Your task to perform on an android device: set default search engine in the chrome app Image 0: 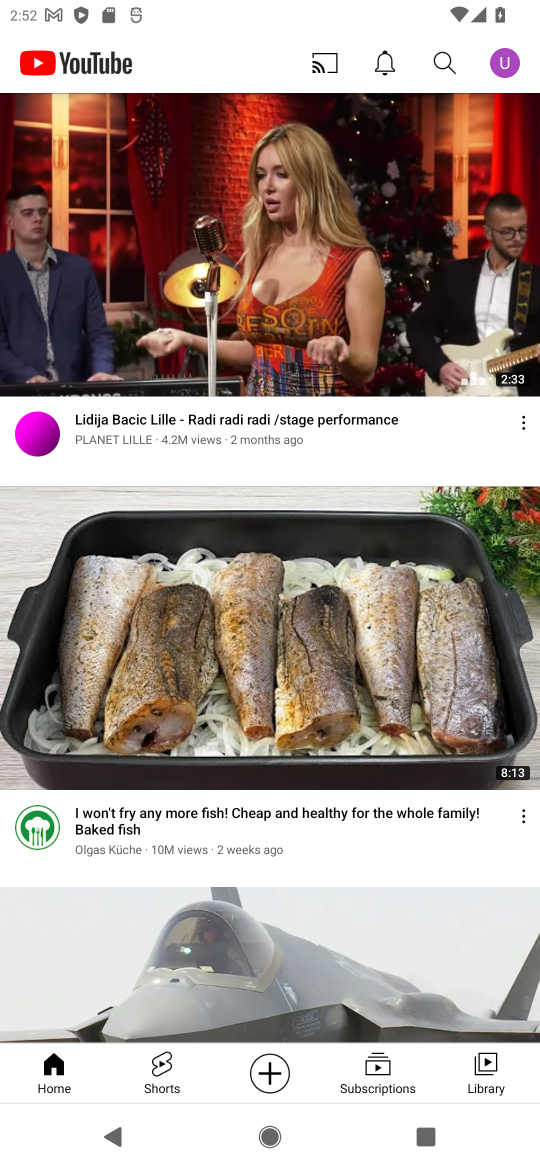
Step 0: press home button
Your task to perform on an android device: set default search engine in the chrome app Image 1: 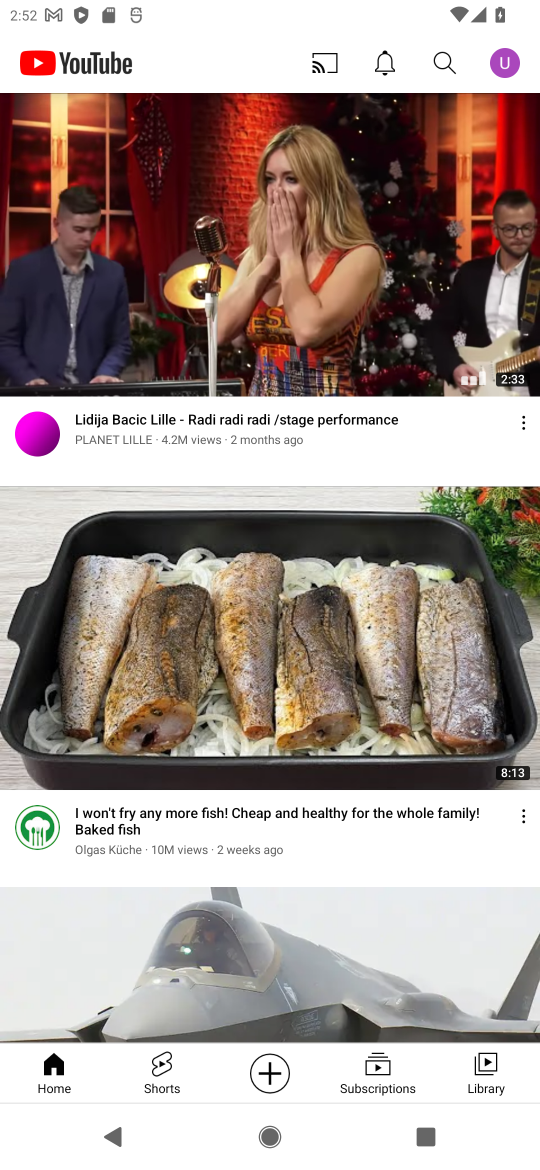
Step 1: press home button
Your task to perform on an android device: set default search engine in the chrome app Image 2: 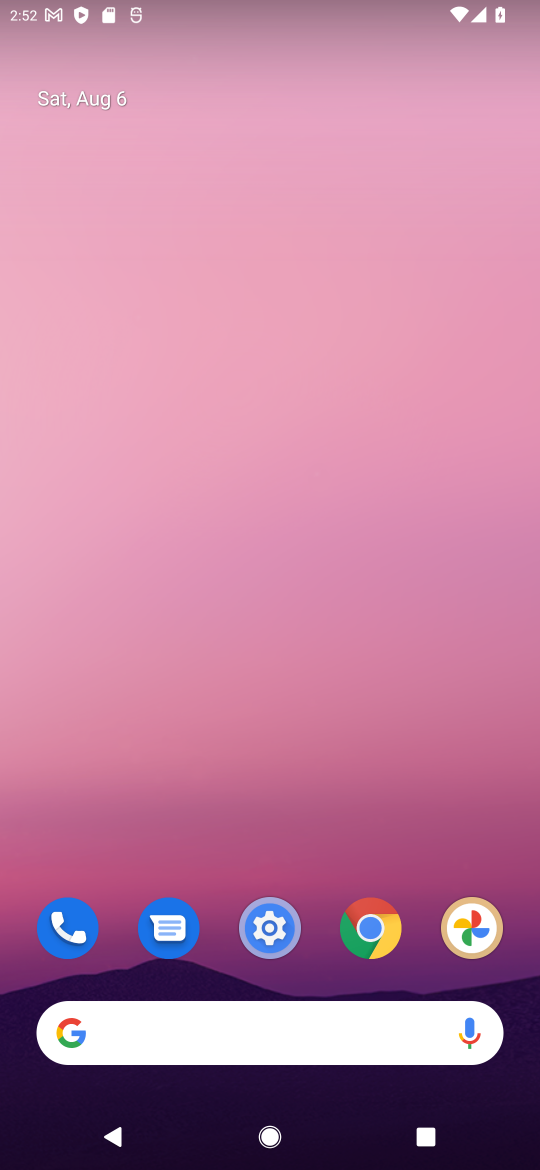
Step 2: drag from (219, 947) to (319, 333)
Your task to perform on an android device: set default search engine in the chrome app Image 3: 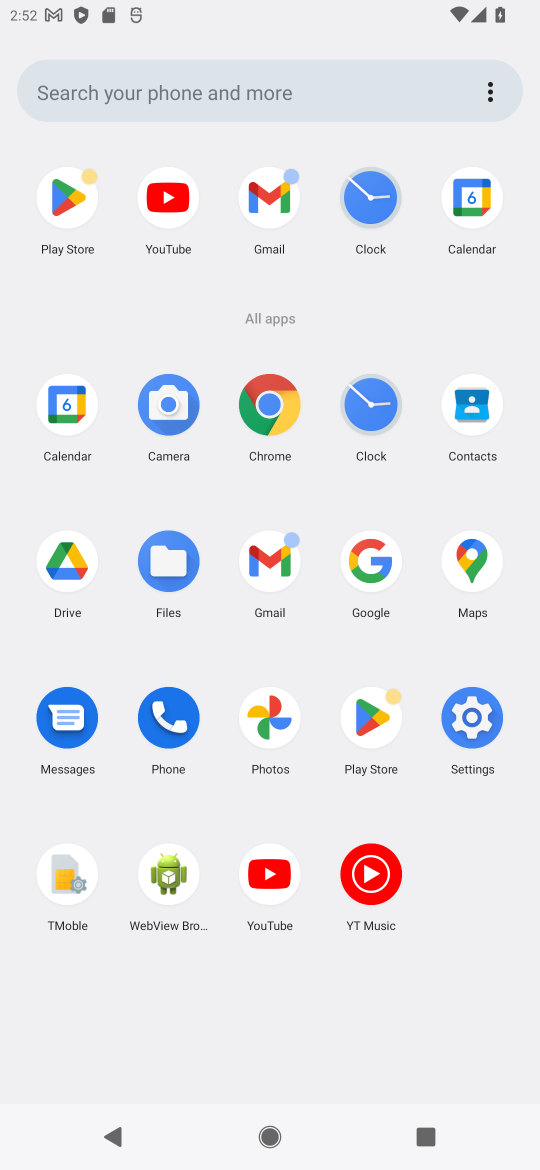
Step 3: click (276, 402)
Your task to perform on an android device: set default search engine in the chrome app Image 4: 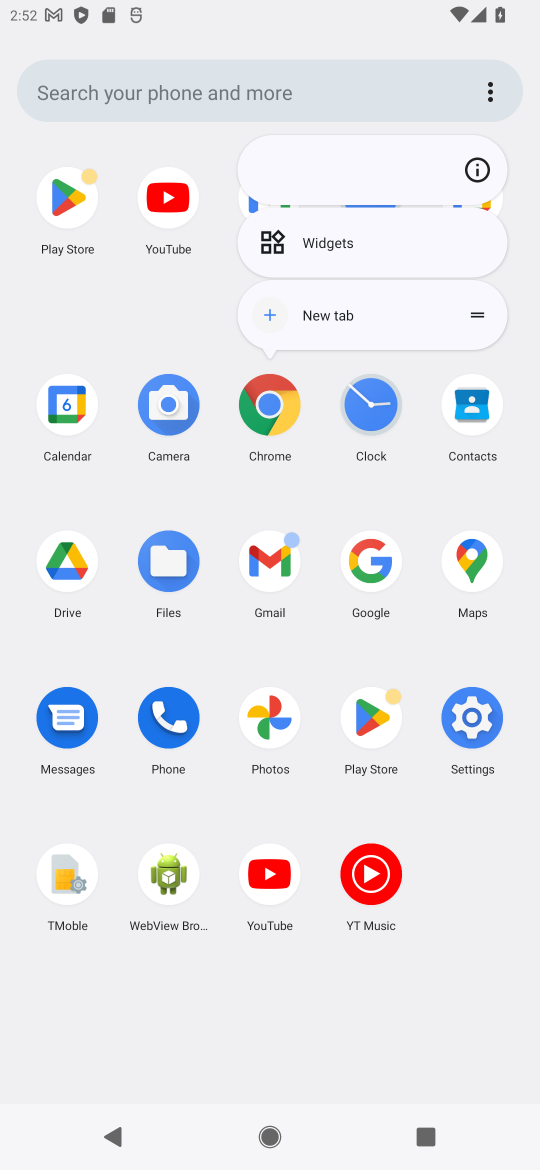
Step 4: click (469, 175)
Your task to perform on an android device: set default search engine in the chrome app Image 5: 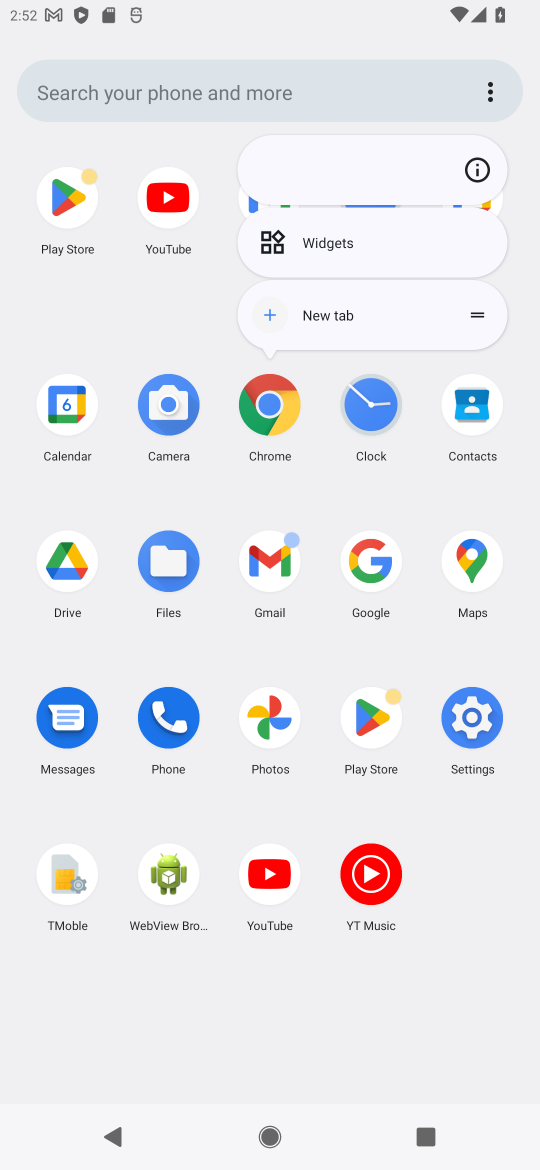
Step 5: click (468, 180)
Your task to perform on an android device: set default search engine in the chrome app Image 6: 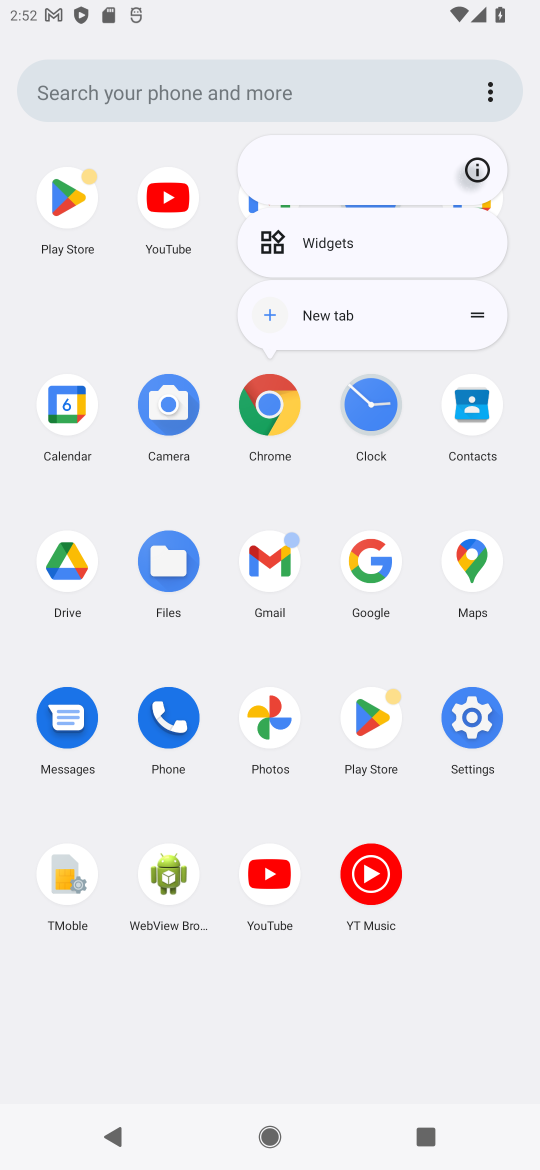
Step 6: click (468, 181)
Your task to perform on an android device: set default search engine in the chrome app Image 7: 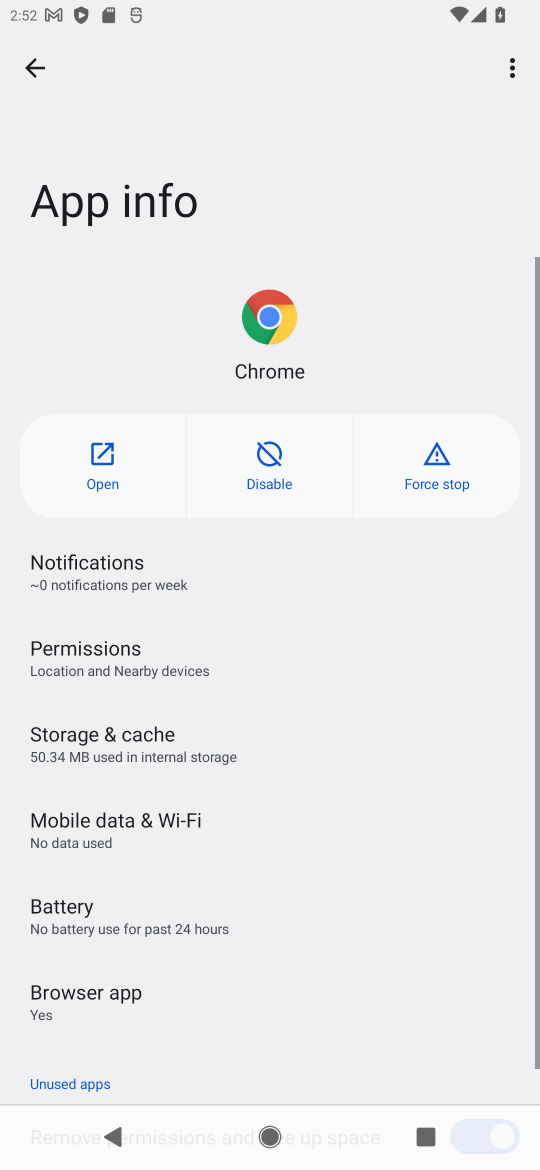
Step 7: click (85, 470)
Your task to perform on an android device: set default search engine in the chrome app Image 8: 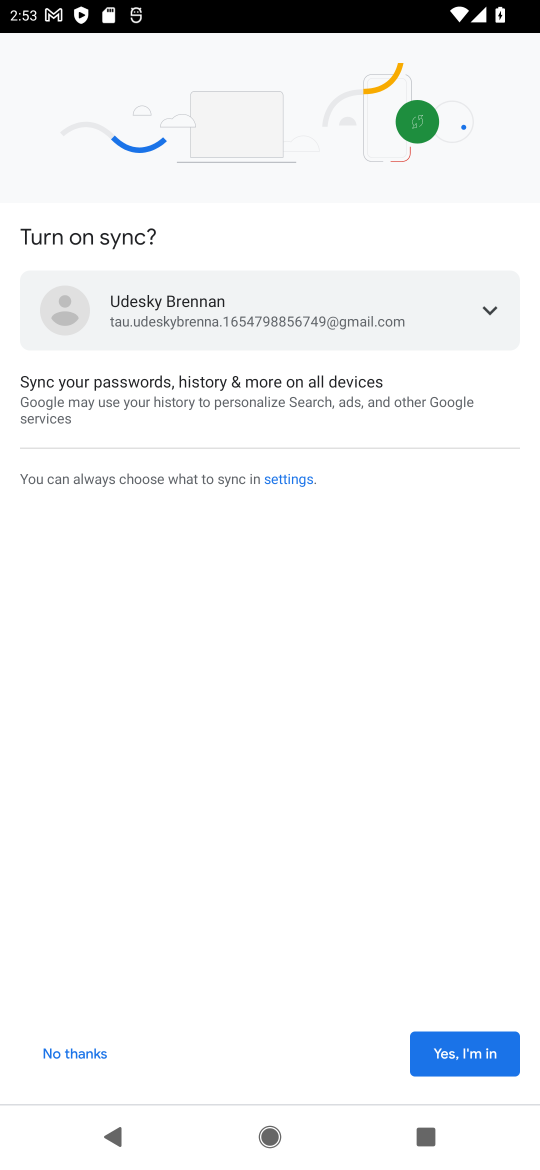
Step 8: drag from (299, 724) to (325, 566)
Your task to perform on an android device: set default search engine in the chrome app Image 9: 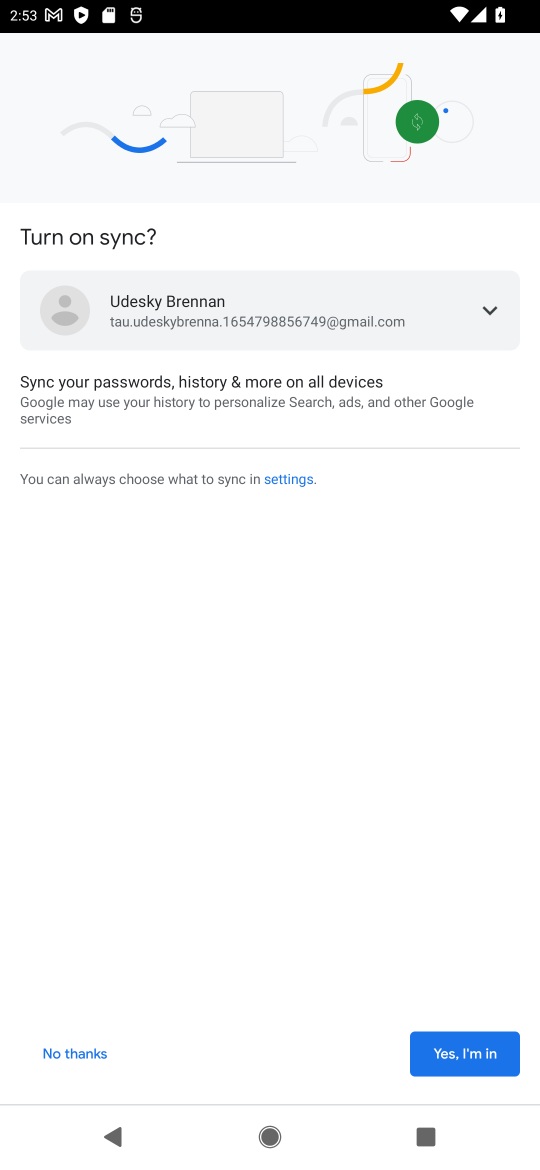
Step 9: drag from (192, 702) to (260, 342)
Your task to perform on an android device: set default search engine in the chrome app Image 10: 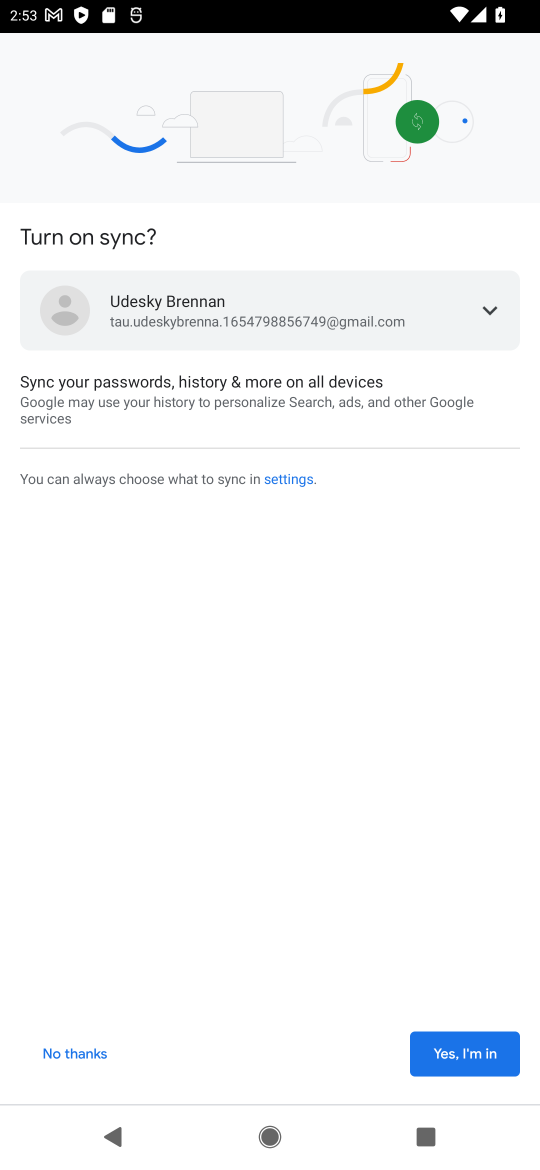
Step 10: click (455, 1045)
Your task to perform on an android device: set default search engine in the chrome app Image 11: 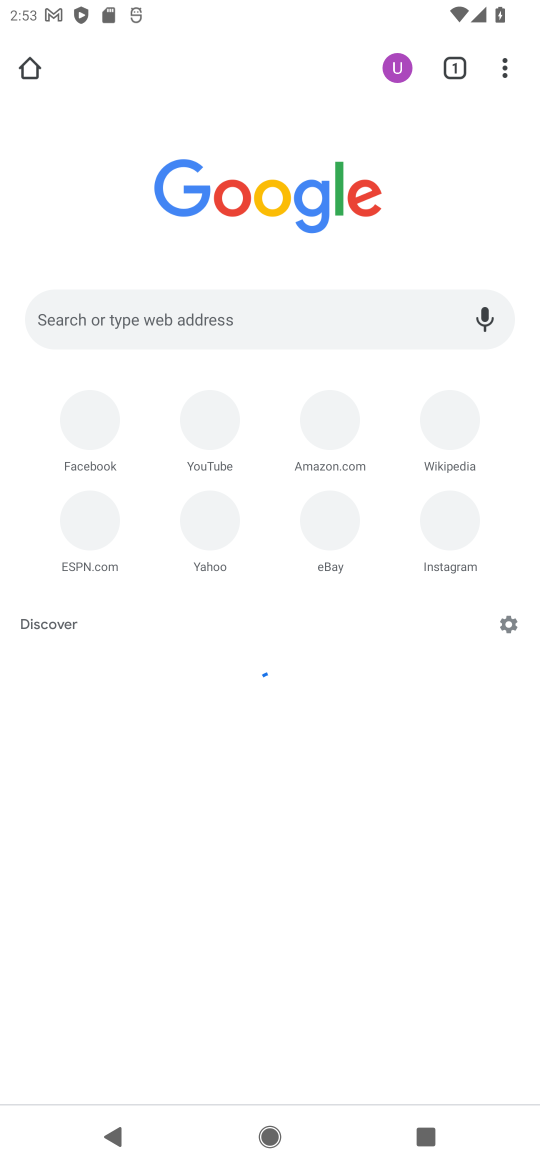
Step 11: drag from (507, 70) to (344, 588)
Your task to perform on an android device: set default search engine in the chrome app Image 12: 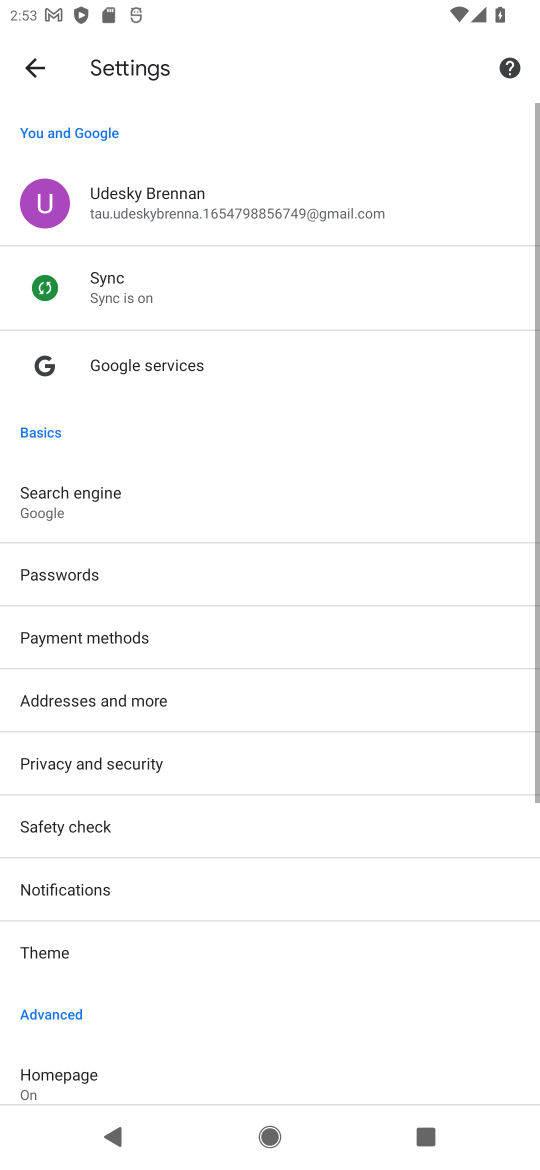
Step 12: click (116, 507)
Your task to perform on an android device: set default search engine in the chrome app Image 13: 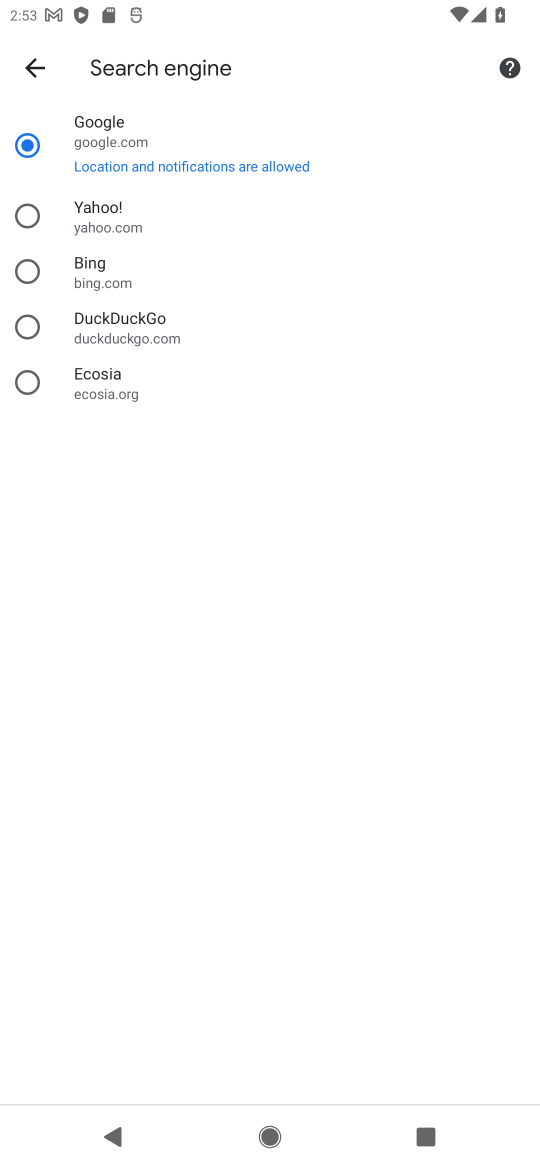
Step 13: click (70, 209)
Your task to perform on an android device: set default search engine in the chrome app Image 14: 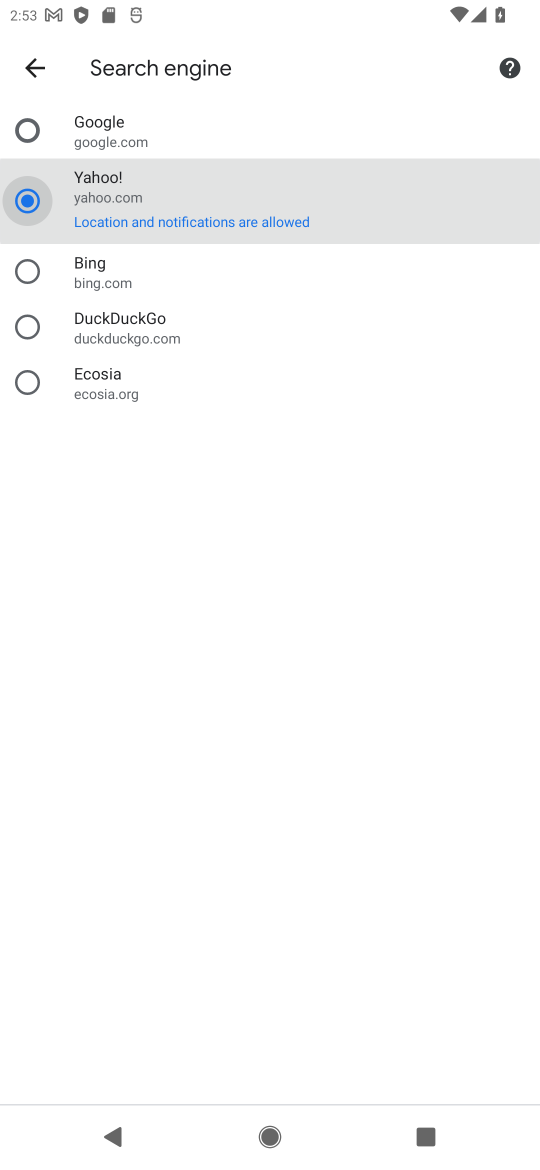
Step 14: task complete